Your task to perform on an android device: Open accessibility settings Image 0: 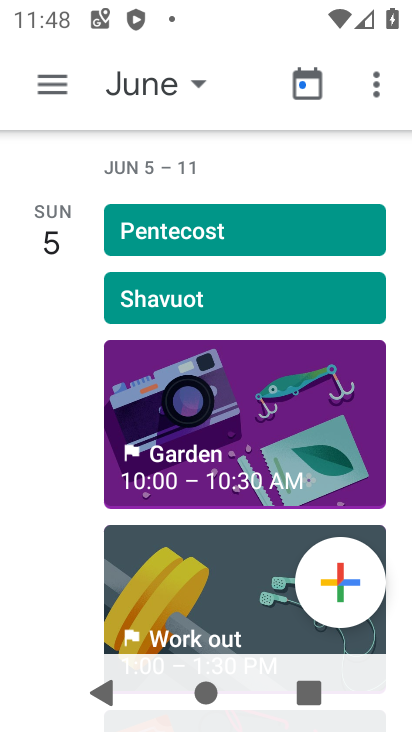
Step 0: press home button
Your task to perform on an android device: Open accessibility settings Image 1: 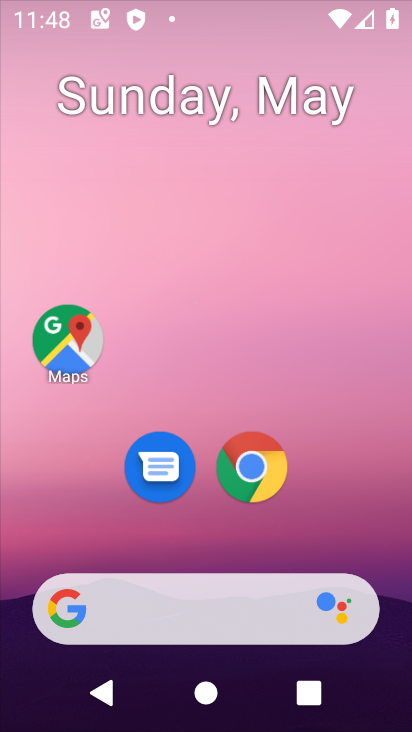
Step 1: drag from (392, 623) to (293, 80)
Your task to perform on an android device: Open accessibility settings Image 2: 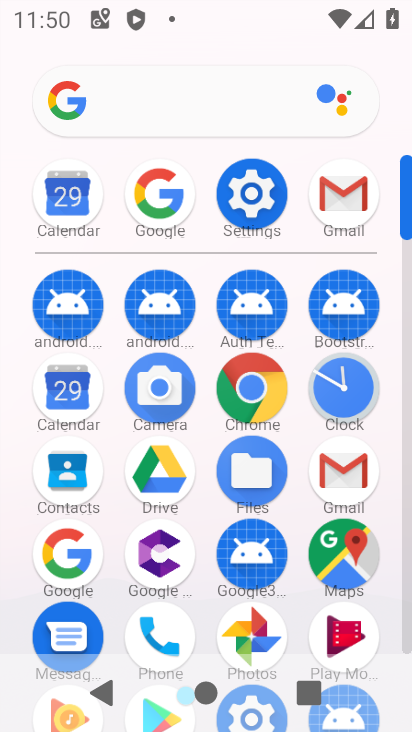
Step 2: click (246, 186)
Your task to perform on an android device: Open accessibility settings Image 3: 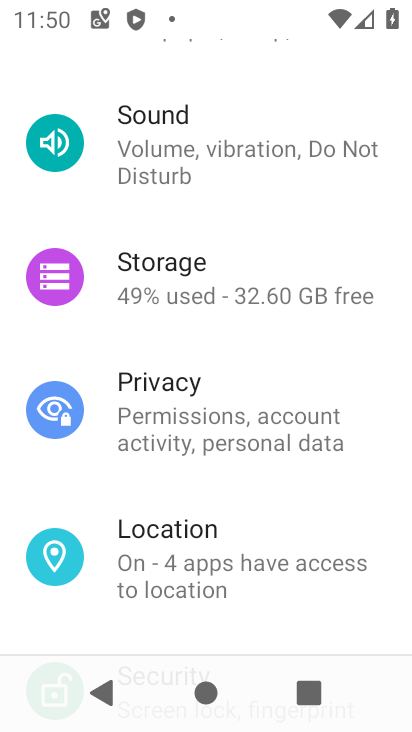
Step 3: drag from (188, 561) to (181, 38)
Your task to perform on an android device: Open accessibility settings Image 4: 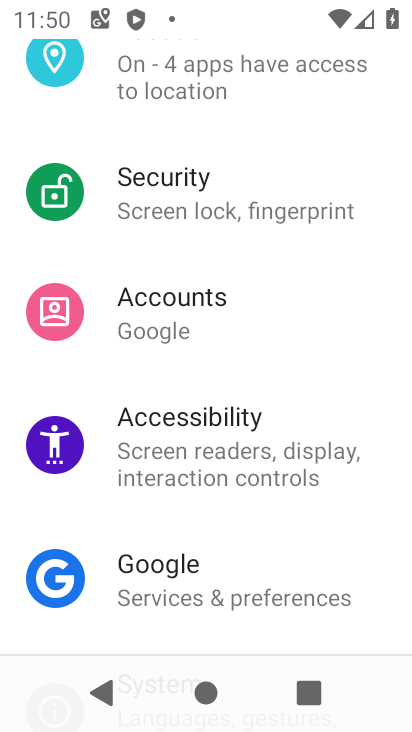
Step 4: click (208, 433)
Your task to perform on an android device: Open accessibility settings Image 5: 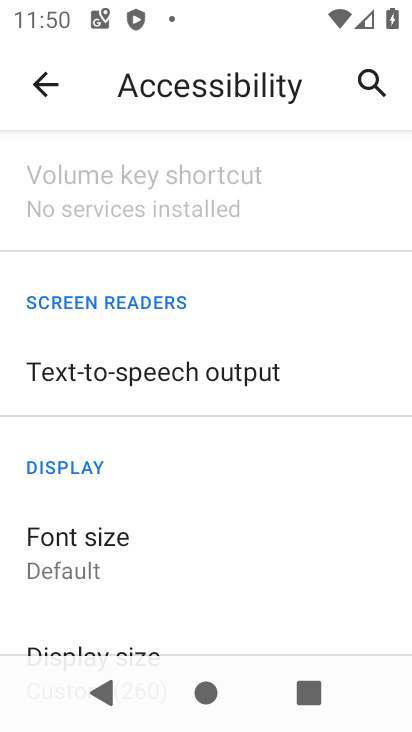
Step 5: task complete